Your task to perform on an android device: turn notification dots off Image 0: 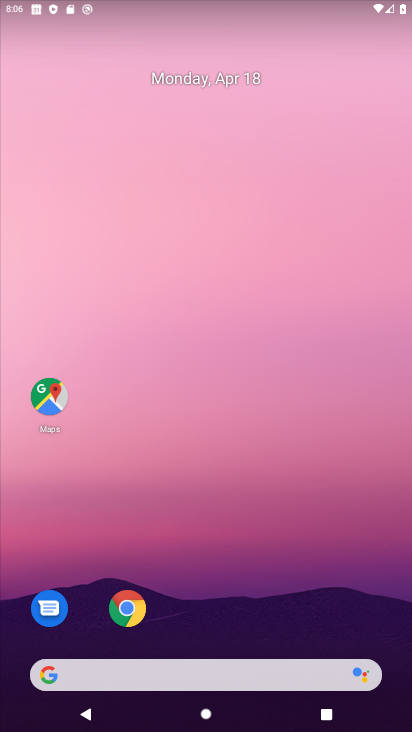
Step 0: drag from (221, 605) to (197, 179)
Your task to perform on an android device: turn notification dots off Image 1: 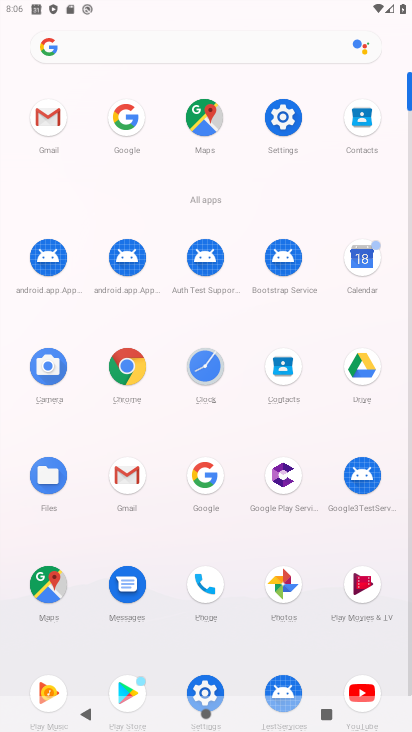
Step 1: click (283, 121)
Your task to perform on an android device: turn notification dots off Image 2: 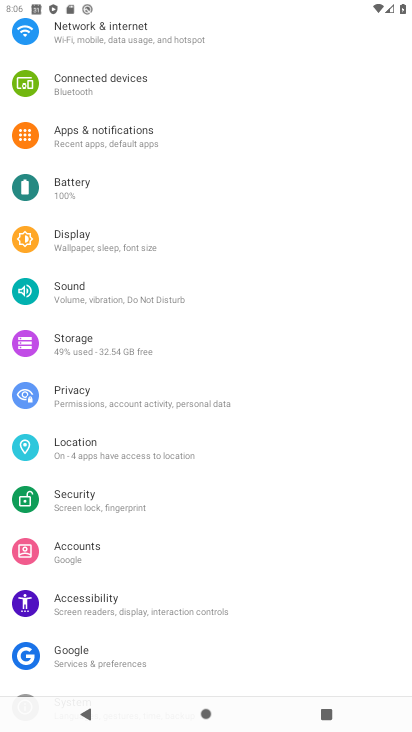
Step 2: drag from (134, 191) to (139, 406)
Your task to perform on an android device: turn notification dots off Image 3: 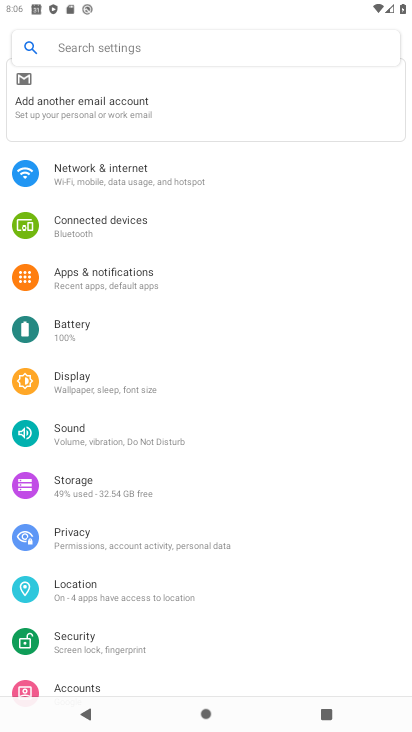
Step 3: click (86, 277)
Your task to perform on an android device: turn notification dots off Image 4: 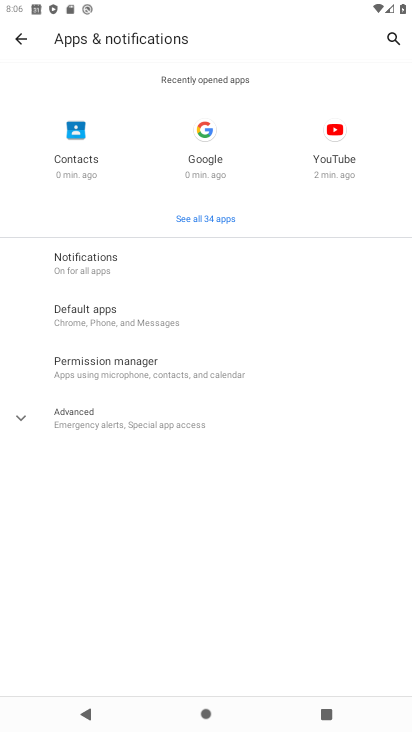
Step 4: click (96, 262)
Your task to perform on an android device: turn notification dots off Image 5: 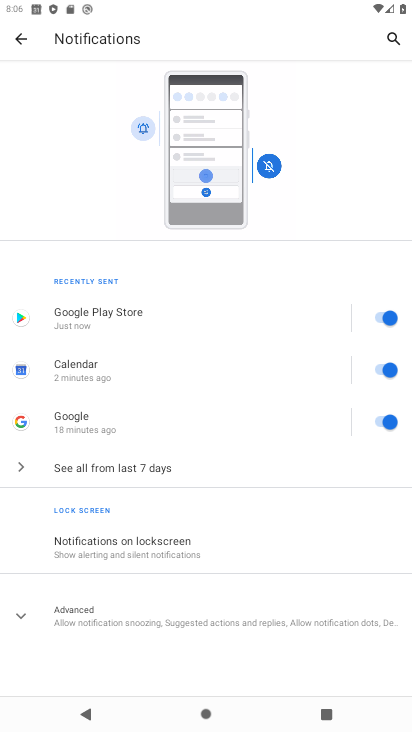
Step 5: click (101, 616)
Your task to perform on an android device: turn notification dots off Image 6: 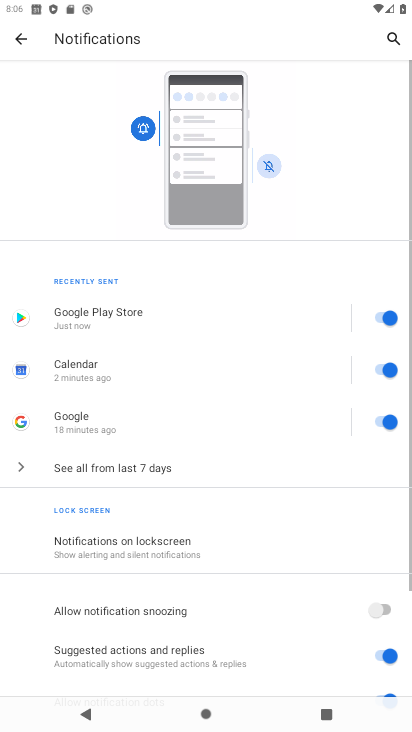
Step 6: drag from (250, 573) to (218, 298)
Your task to perform on an android device: turn notification dots off Image 7: 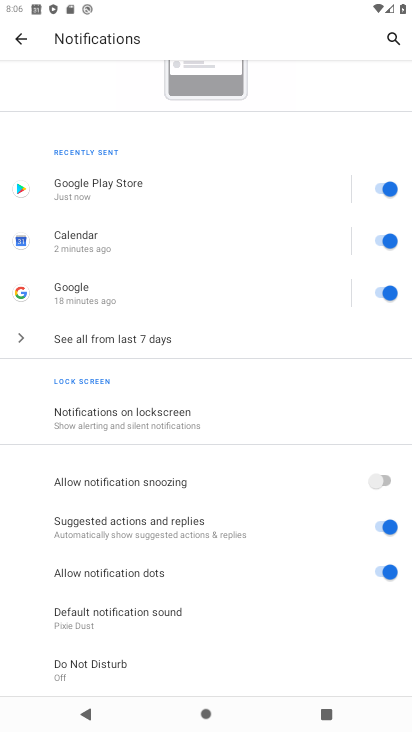
Step 7: click (395, 568)
Your task to perform on an android device: turn notification dots off Image 8: 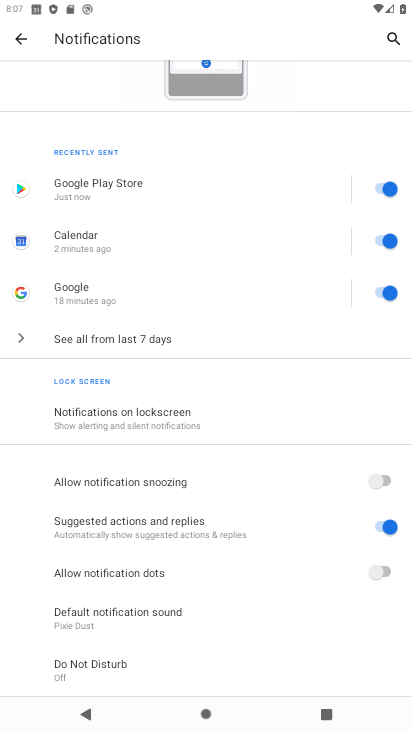
Step 8: task complete